Your task to perform on an android device: Go to Yahoo.com Image 0: 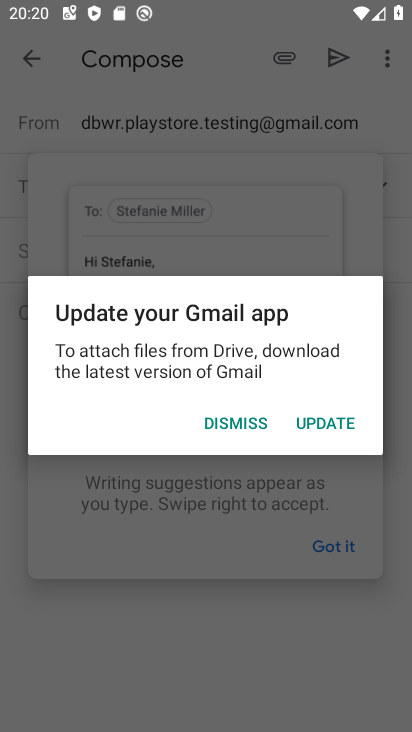
Step 0: press home button
Your task to perform on an android device: Go to Yahoo.com Image 1: 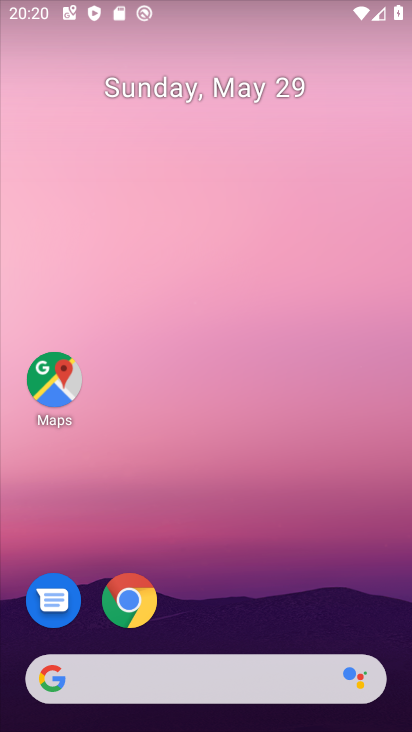
Step 1: drag from (344, 303) to (338, 161)
Your task to perform on an android device: Go to Yahoo.com Image 2: 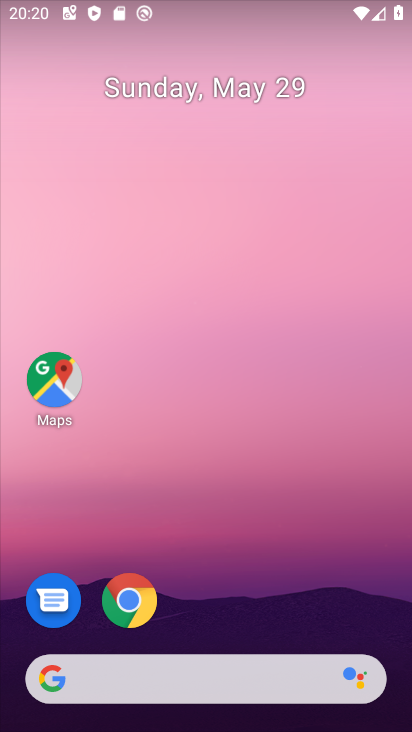
Step 2: drag from (312, 601) to (297, 177)
Your task to perform on an android device: Go to Yahoo.com Image 3: 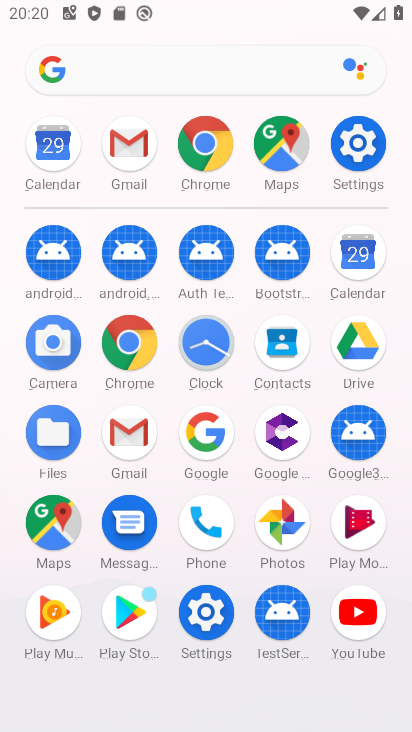
Step 3: click (199, 140)
Your task to perform on an android device: Go to Yahoo.com Image 4: 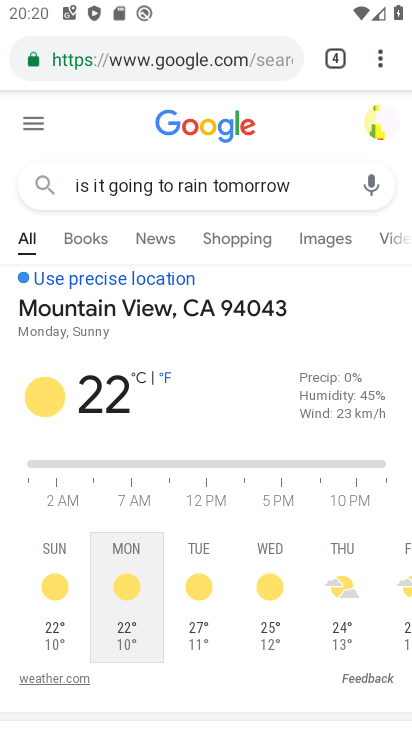
Step 4: click (142, 58)
Your task to perform on an android device: Go to Yahoo.com Image 5: 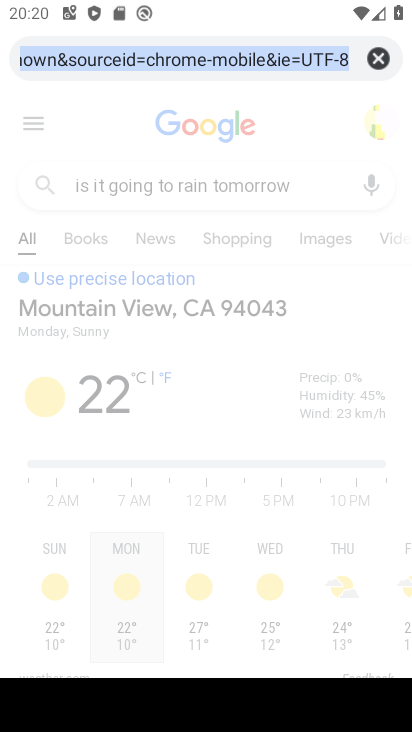
Step 5: click (375, 58)
Your task to perform on an android device: Go to Yahoo.com Image 6: 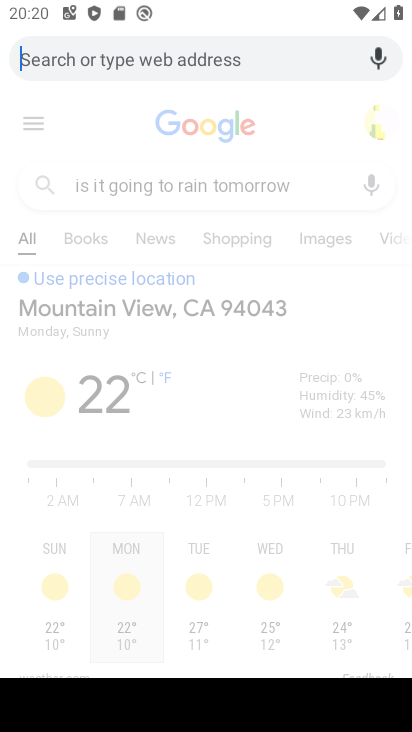
Step 6: type "yahoo.com"
Your task to perform on an android device: Go to Yahoo.com Image 7: 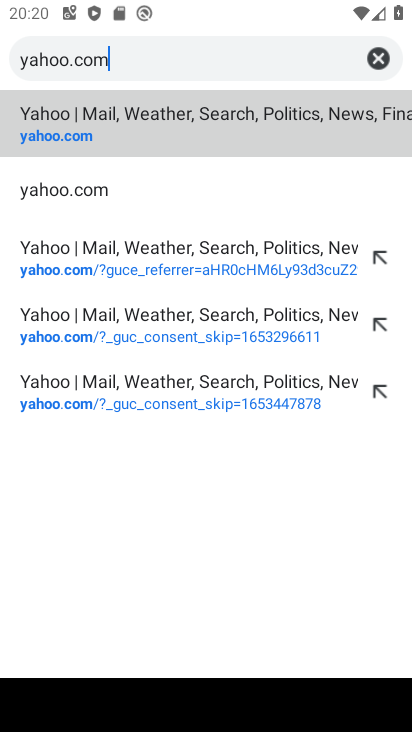
Step 7: click (90, 121)
Your task to perform on an android device: Go to Yahoo.com Image 8: 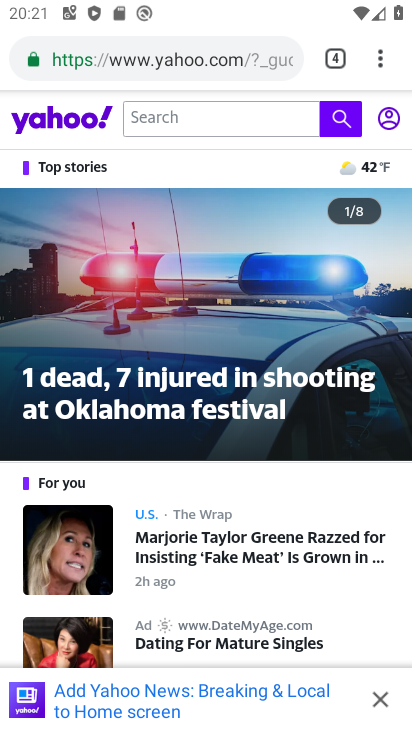
Step 8: task complete